Your task to perform on an android device: Open the map Image 0: 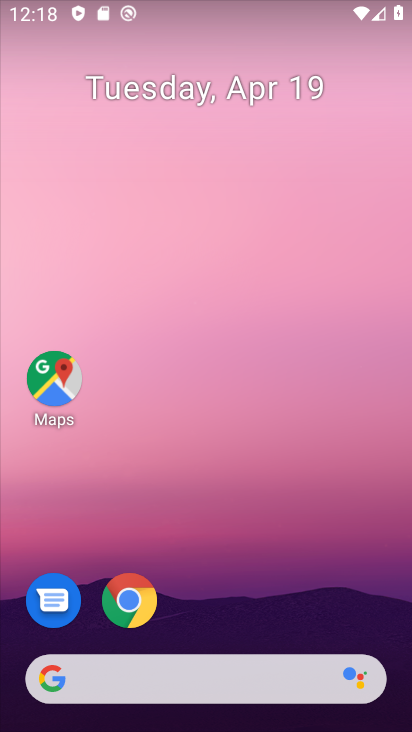
Step 0: drag from (251, 611) to (148, 189)
Your task to perform on an android device: Open the map Image 1: 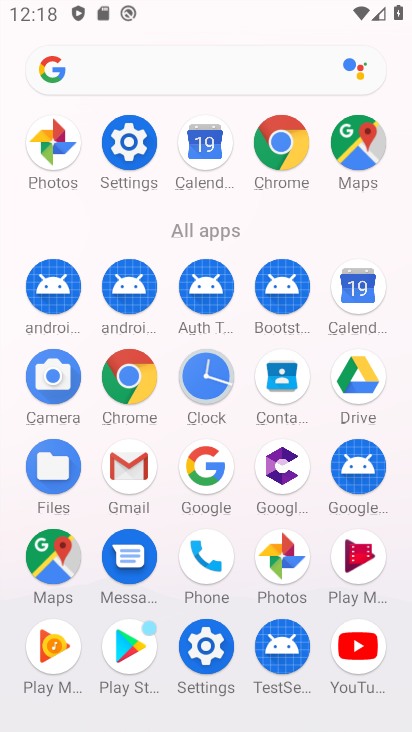
Step 1: click (380, 135)
Your task to perform on an android device: Open the map Image 2: 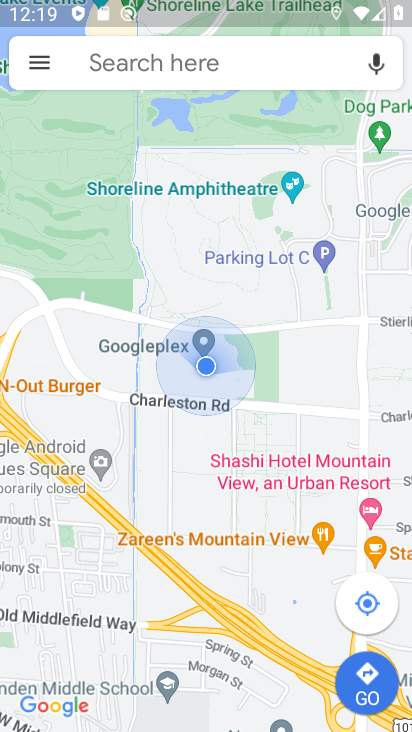
Step 2: task complete